Your task to perform on an android device: turn off location history Image 0: 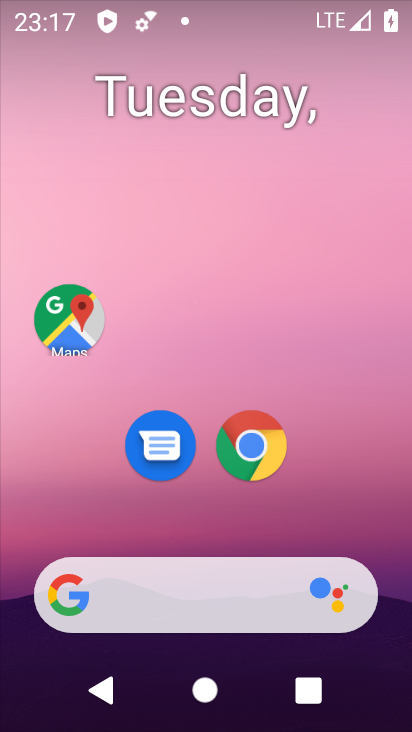
Step 0: drag from (309, 473) to (383, 52)
Your task to perform on an android device: turn off location history Image 1: 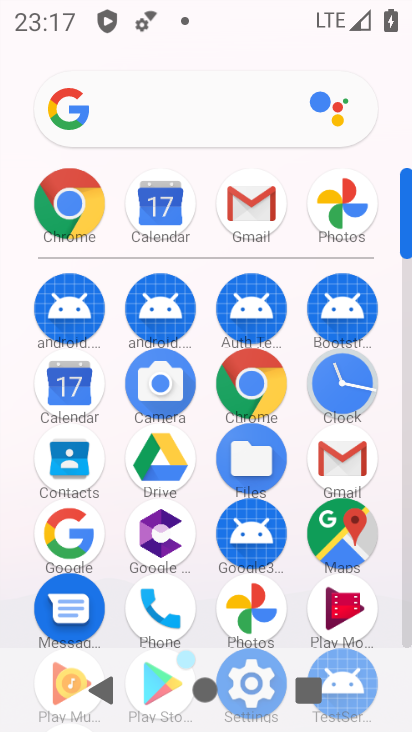
Step 1: drag from (299, 551) to (331, 315)
Your task to perform on an android device: turn off location history Image 2: 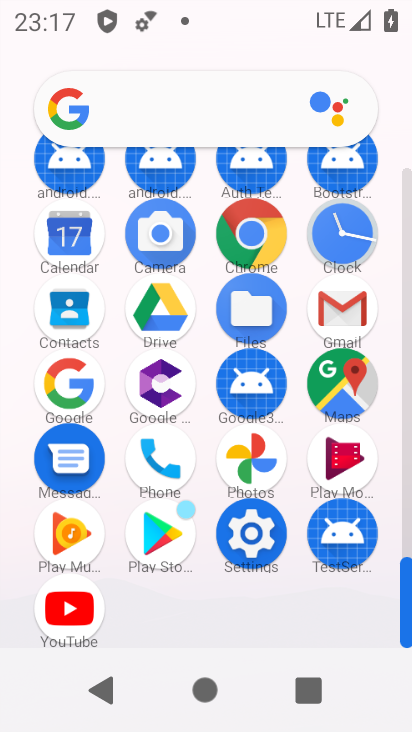
Step 2: click (255, 525)
Your task to perform on an android device: turn off location history Image 3: 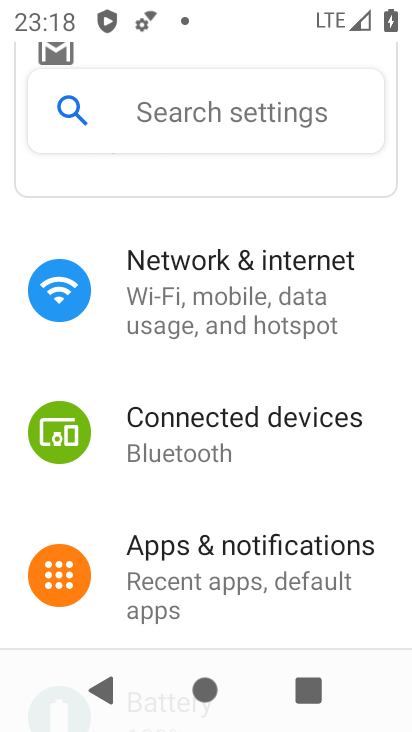
Step 3: drag from (283, 588) to (352, 274)
Your task to perform on an android device: turn off location history Image 4: 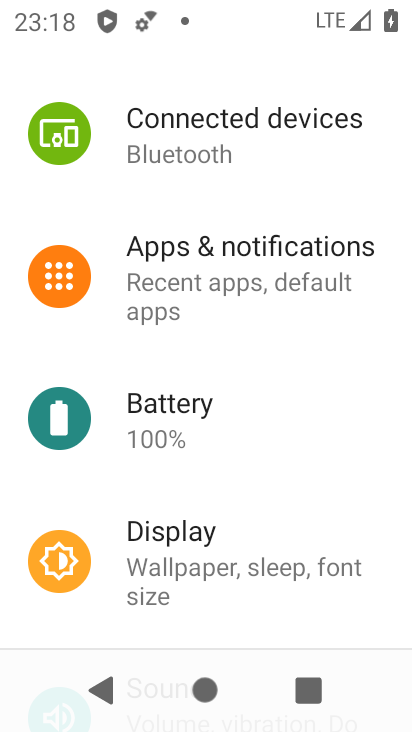
Step 4: drag from (275, 526) to (343, 171)
Your task to perform on an android device: turn off location history Image 5: 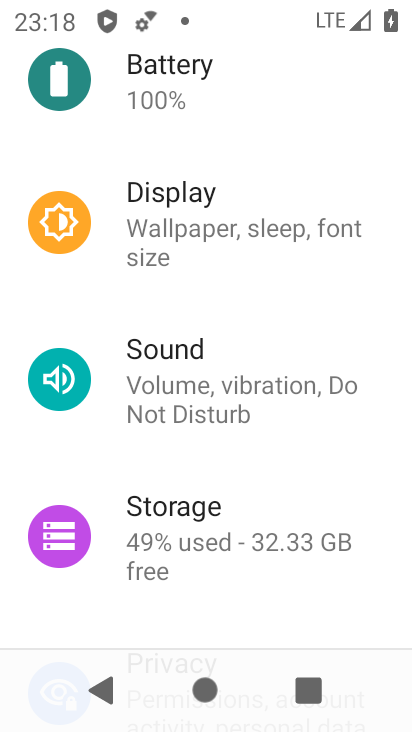
Step 5: drag from (281, 480) to (323, 190)
Your task to perform on an android device: turn off location history Image 6: 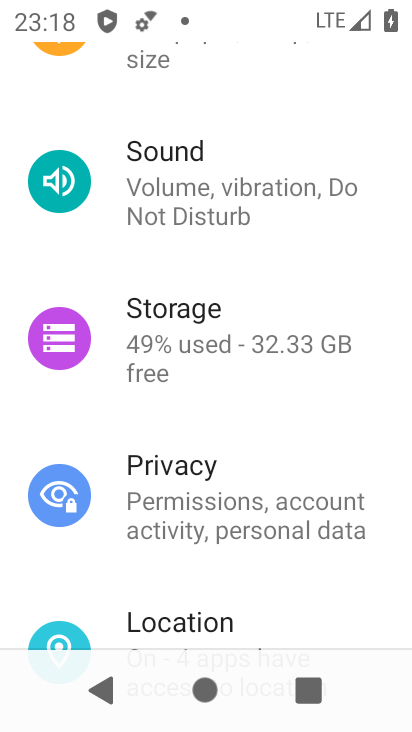
Step 6: drag from (224, 581) to (262, 399)
Your task to perform on an android device: turn off location history Image 7: 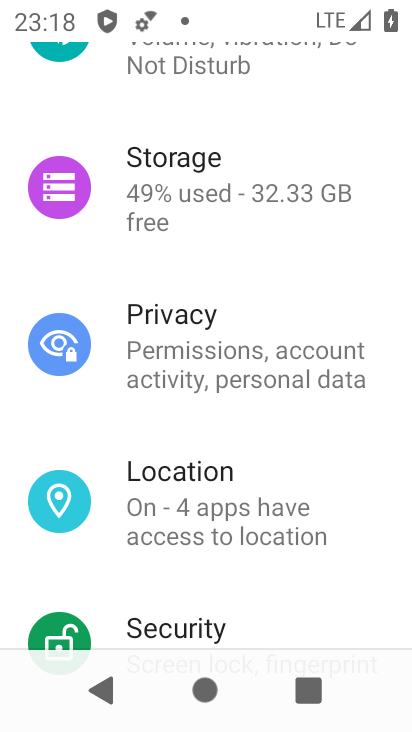
Step 7: click (195, 488)
Your task to perform on an android device: turn off location history Image 8: 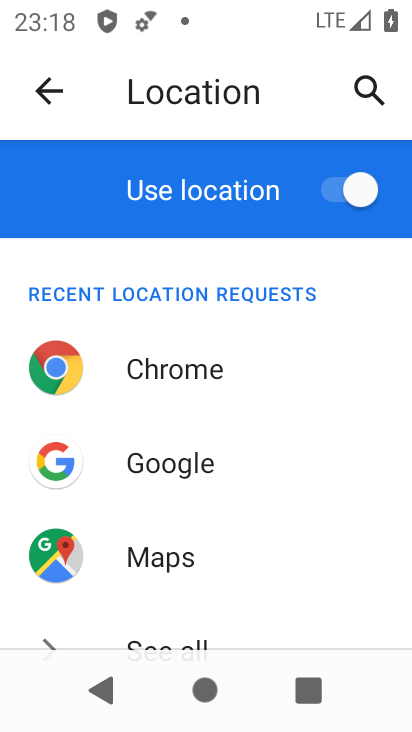
Step 8: drag from (203, 591) to (305, 310)
Your task to perform on an android device: turn off location history Image 9: 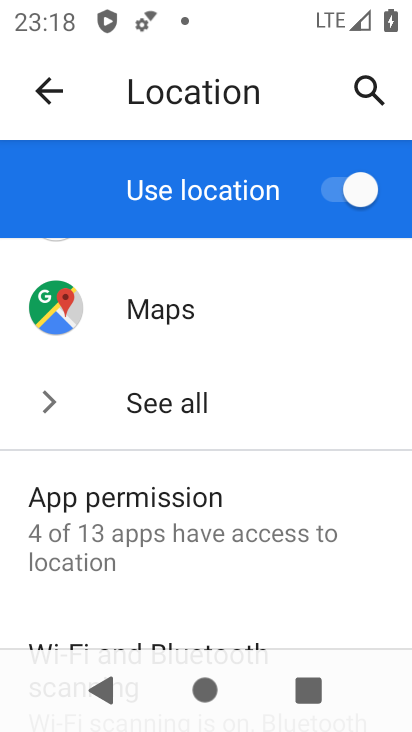
Step 9: drag from (194, 585) to (244, 313)
Your task to perform on an android device: turn off location history Image 10: 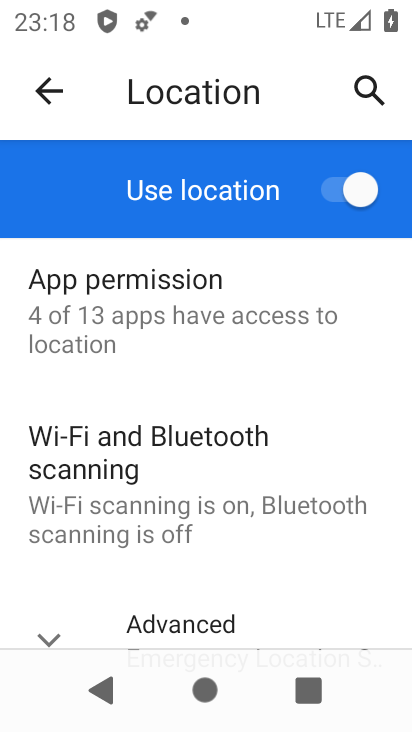
Step 10: drag from (195, 581) to (230, 326)
Your task to perform on an android device: turn off location history Image 11: 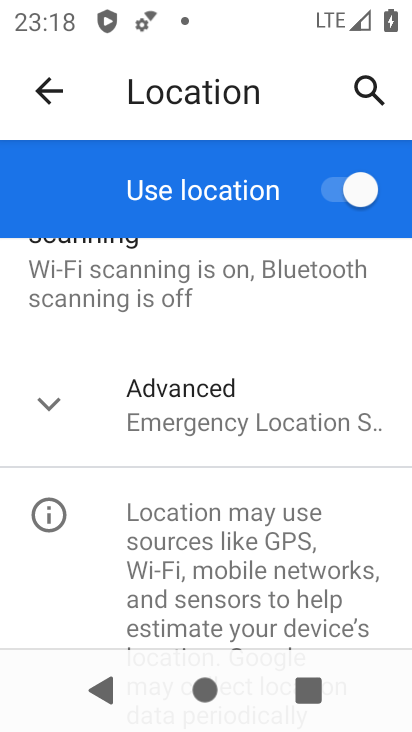
Step 11: click (257, 416)
Your task to perform on an android device: turn off location history Image 12: 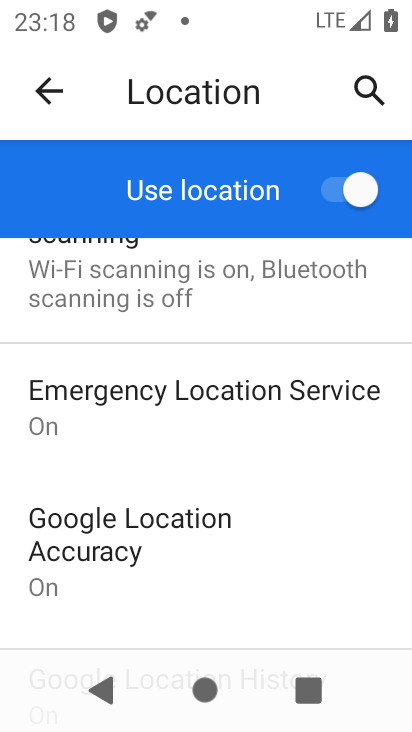
Step 12: drag from (234, 547) to (263, 276)
Your task to perform on an android device: turn off location history Image 13: 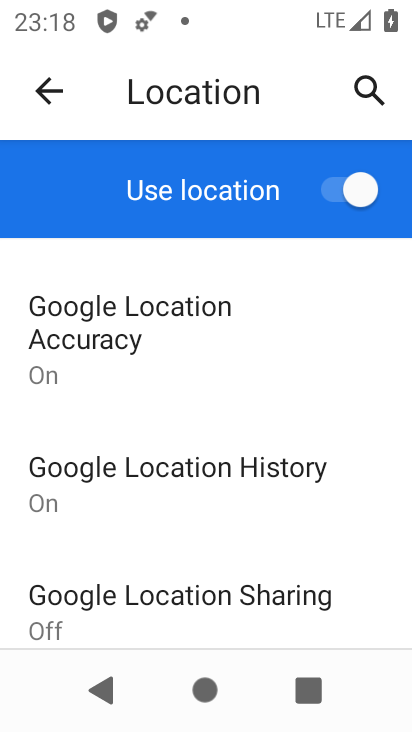
Step 13: click (246, 468)
Your task to perform on an android device: turn off location history Image 14: 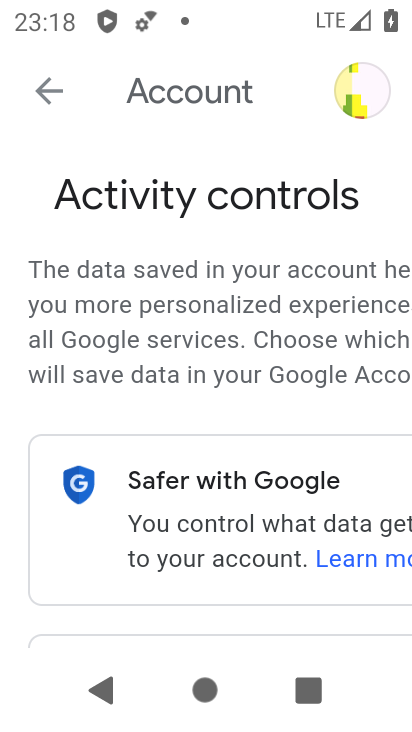
Step 14: drag from (240, 561) to (247, 231)
Your task to perform on an android device: turn off location history Image 15: 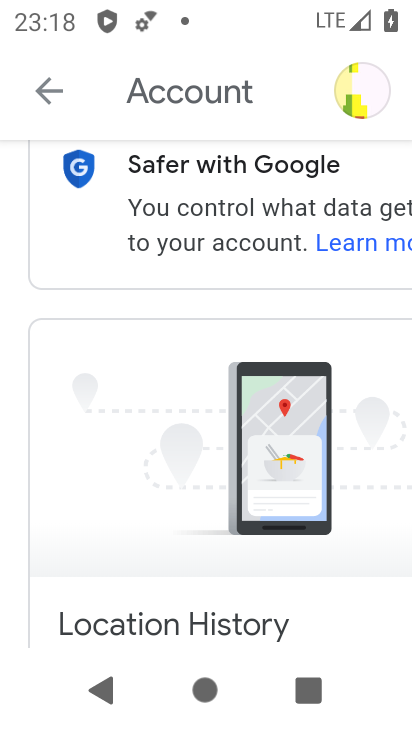
Step 15: drag from (240, 557) to (262, 326)
Your task to perform on an android device: turn off location history Image 16: 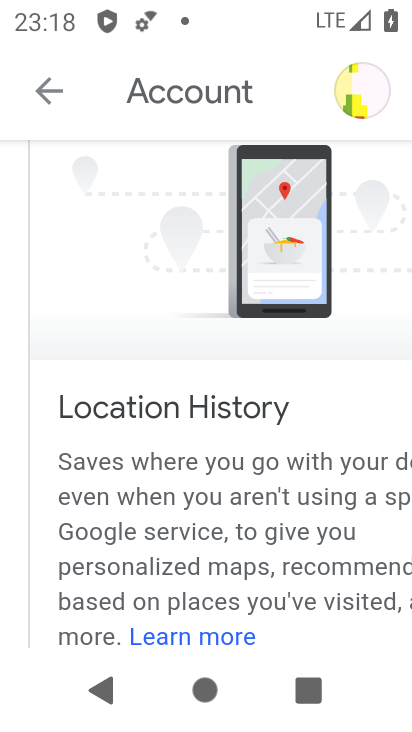
Step 16: drag from (280, 552) to (272, 297)
Your task to perform on an android device: turn off location history Image 17: 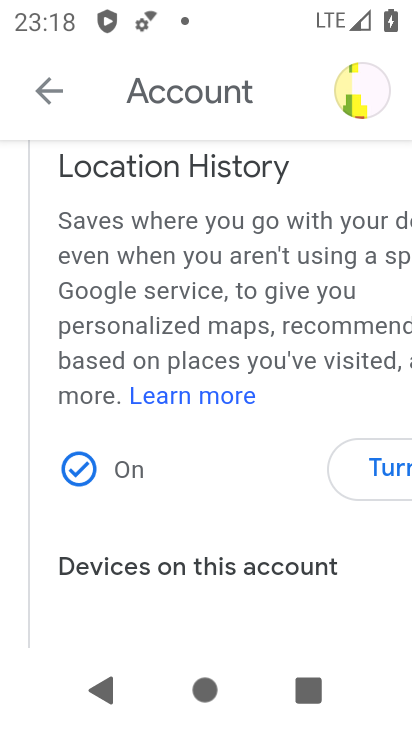
Step 17: click (369, 472)
Your task to perform on an android device: turn off location history Image 18: 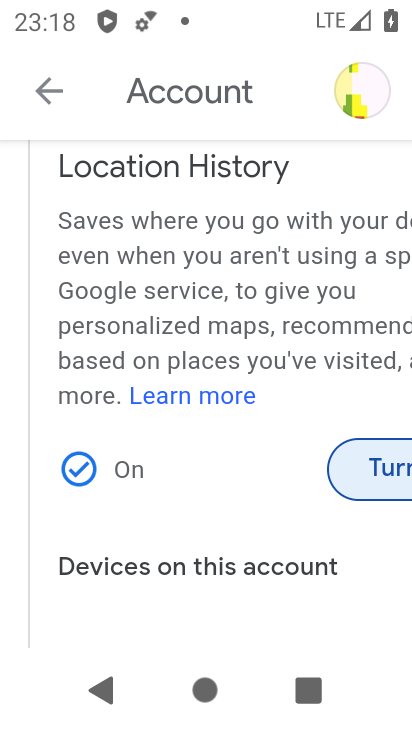
Step 18: click (387, 470)
Your task to perform on an android device: turn off location history Image 19: 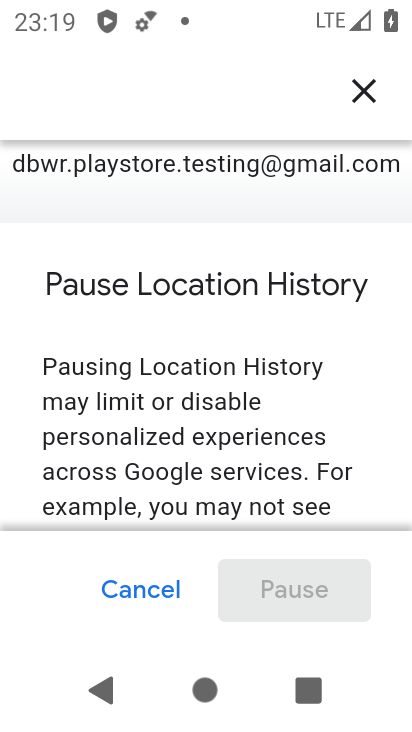
Step 19: drag from (264, 485) to (293, 183)
Your task to perform on an android device: turn off location history Image 20: 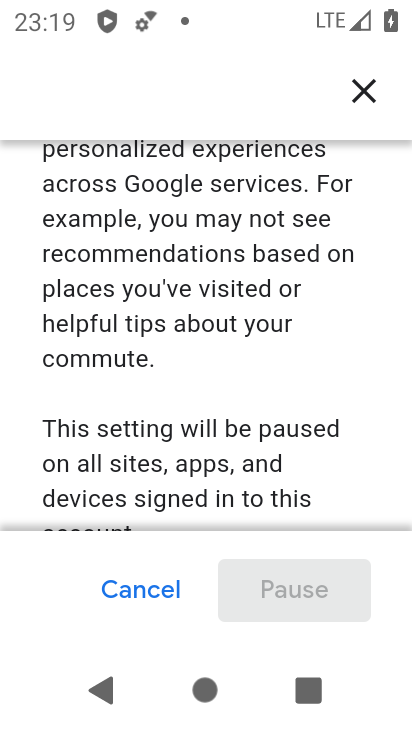
Step 20: drag from (280, 481) to (310, 205)
Your task to perform on an android device: turn off location history Image 21: 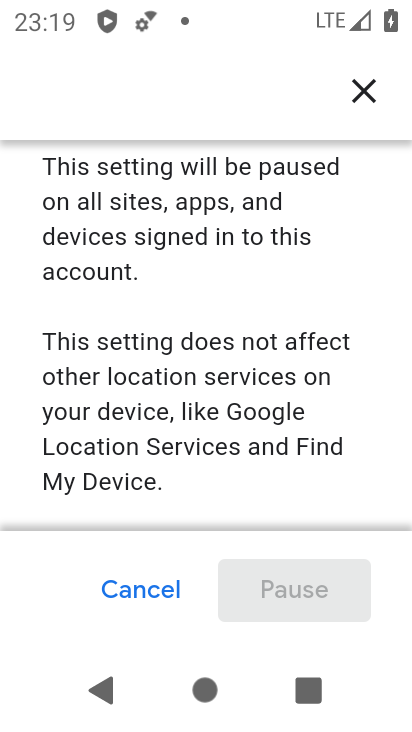
Step 21: drag from (347, 470) to (370, 163)
Your task to perform on an android device: turn off location history Image 22: 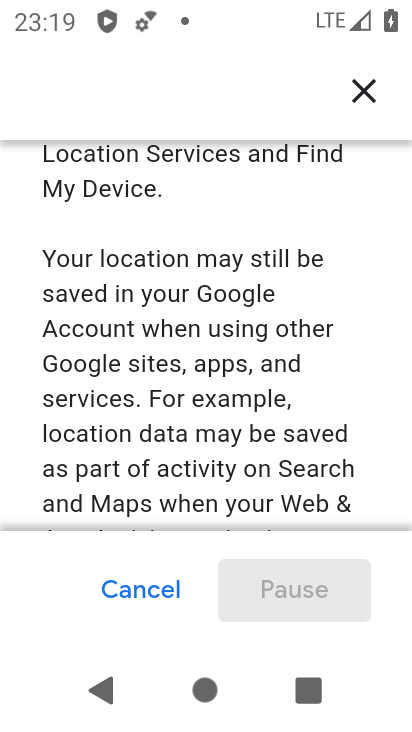
Step 22: drag from (311, 456) to (337, 142)
Your task to perform on an android device: turn off location history Image 23: 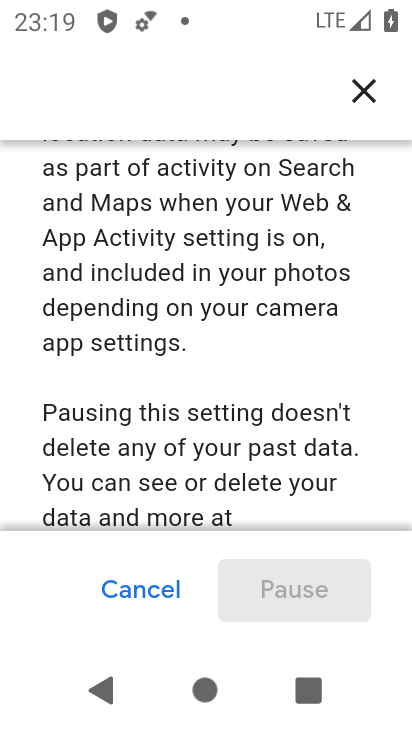
Step 23: drag from (300, 496) to (358, 209)
Your task to perform on an android device: turn off location history Image 24: 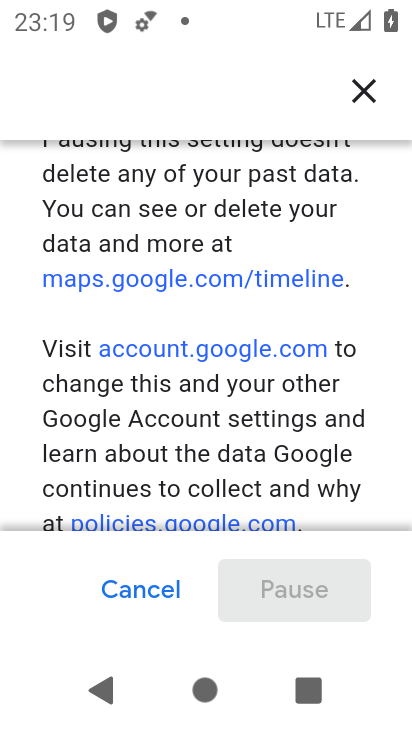
Step 24: drag from (297, 499) to (282, 238)
Your task to perform on an android device: turn off location history Image 25: 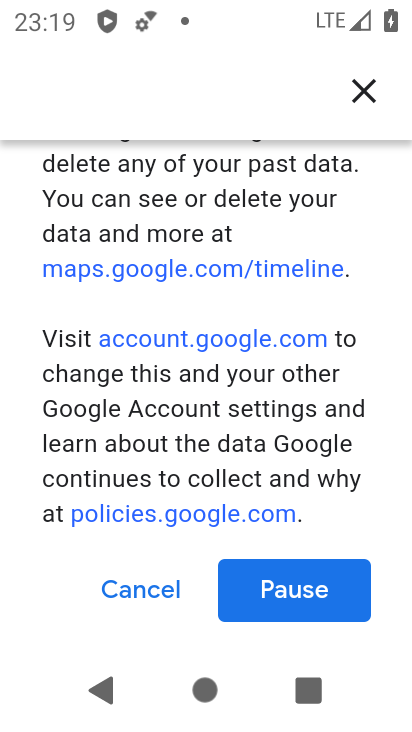
Step 25: drag from (294, 484) to (314, 190)
Your task to perform on an android device: turn off location history Image 26: 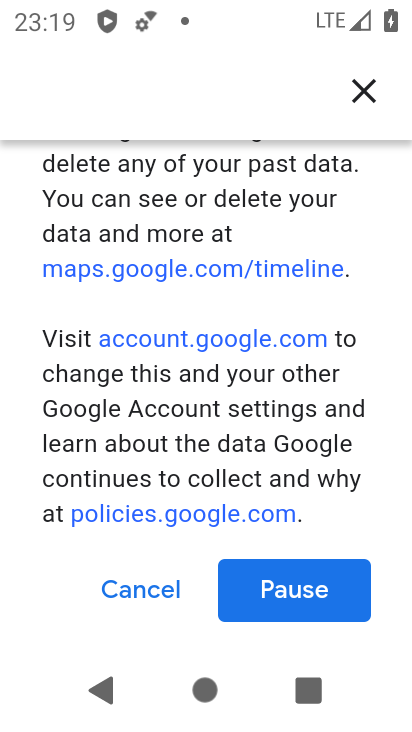
Step 26: click (279, 586)
Your task to perform on an android device: turn off location history Image 27: 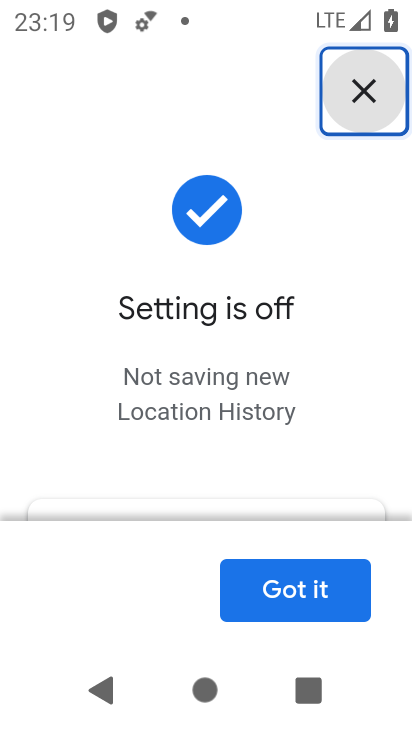
Step 27: task complete